Your task to perform on an android device: Go to eBay Image 0: 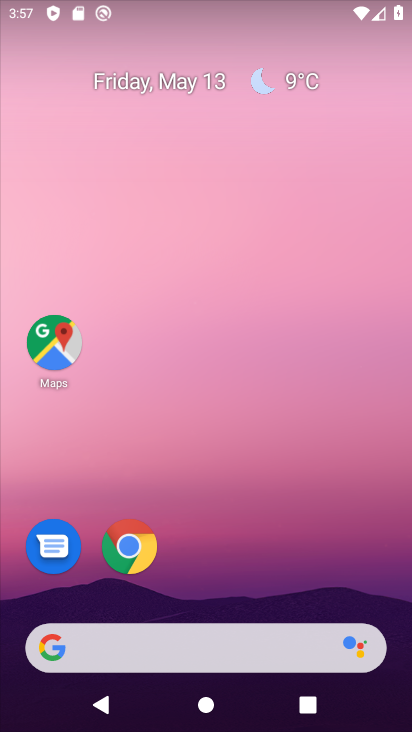
Step 0: drag from (219, 612) to (194, 28)
Your task to perform on an android device: Go to eBay Image 1: 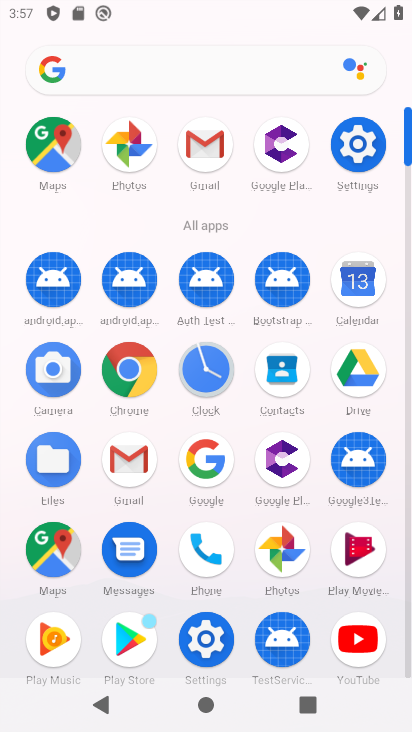
Step 1: click (114, 369)
Your task to perform on an android device: Go to eBay Image 2: 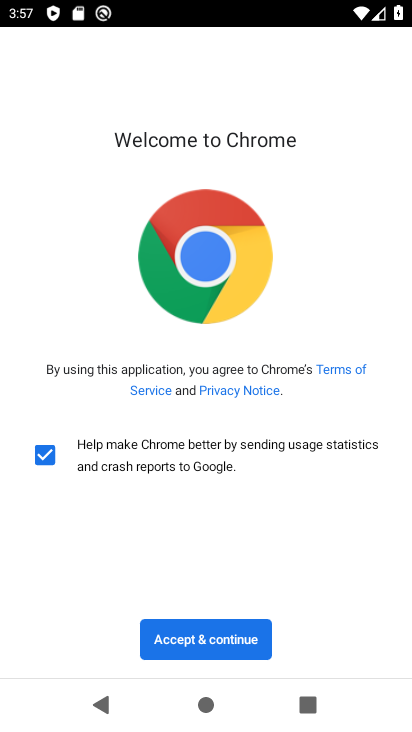
Step 2: click (186, 655)
Your task to perform on an android device: Go to eBay Image 3: 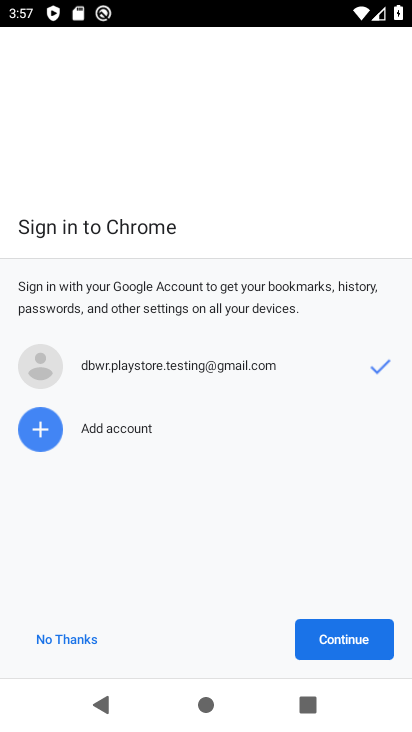
Step 3: click (342, 644)
Your task to perform on an android device: Go to eBay Image 4: 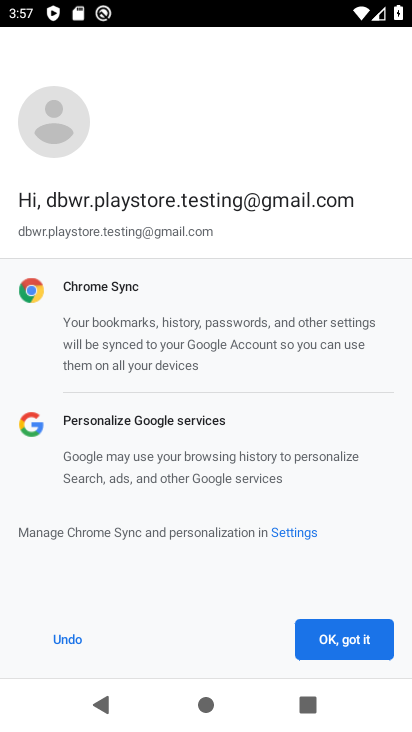
Step 4: click (349, 626)
Your task to perform on an android device: Go to eBay Image 5: 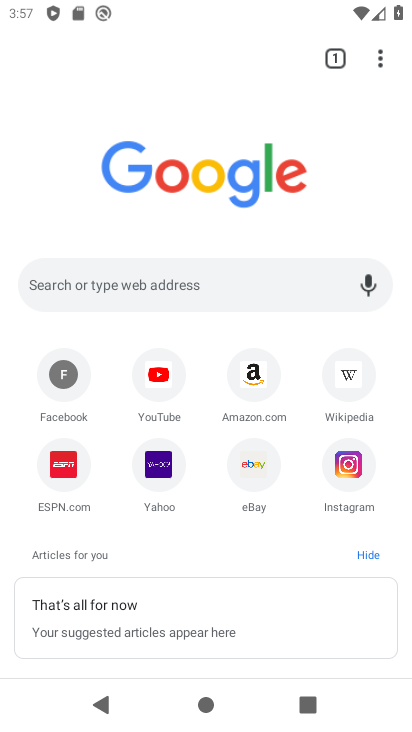
Step 5: click (249, 456)
Your task to perform on an android device: Go to eBay Image 6: 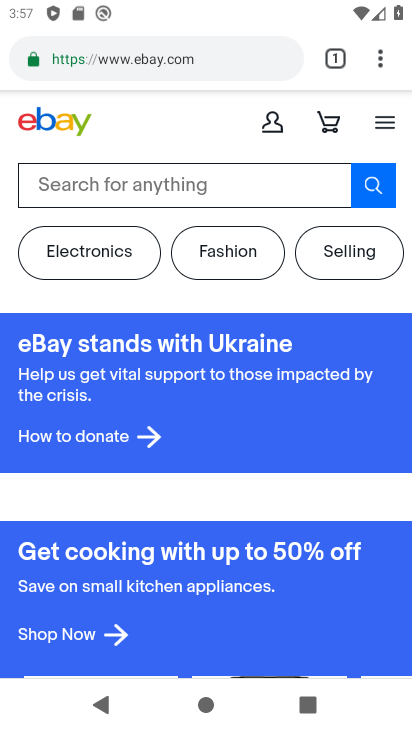
Step 6: task complete